Your task to perform on an android device: set the stopwatch Image 0: 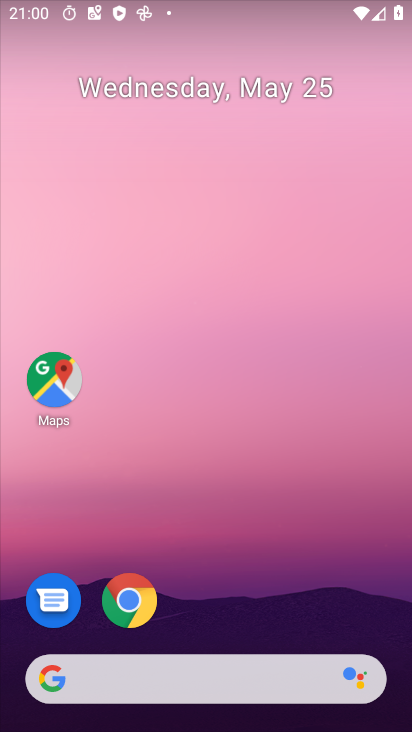
Step 0: drag from (338, 607) to (329, 114)
Your task to perform on an android device: set the stopwatch Image 1: 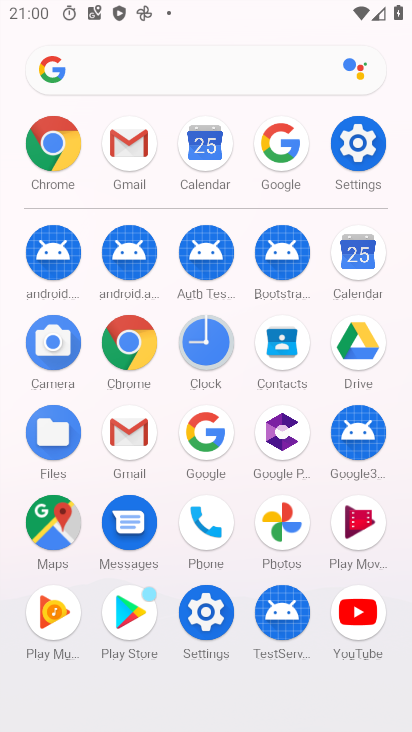
Step 1: click (186, 343)
Your task to perform on an android device: set the stopwatch Image 2: 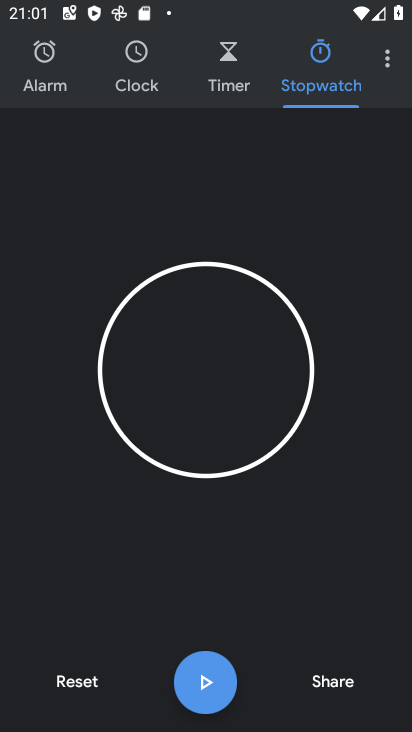
Step 2: click (81, 681)
Your task to perform on an android device: set the stopwatch Image 3: 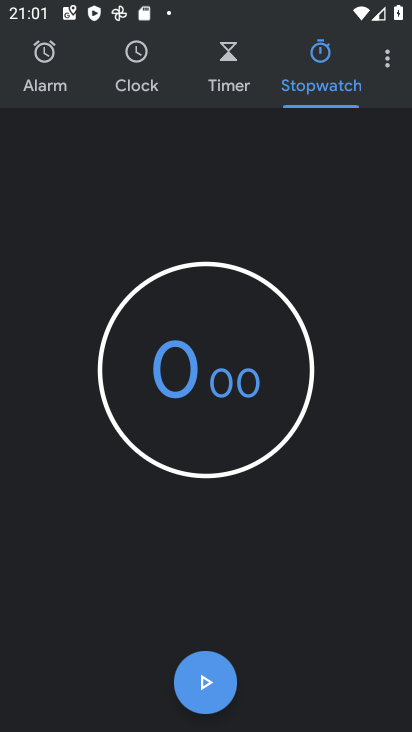
Step 3: click (204, 687)
Your task to perform on an android device: set the stopwatch Image 4: 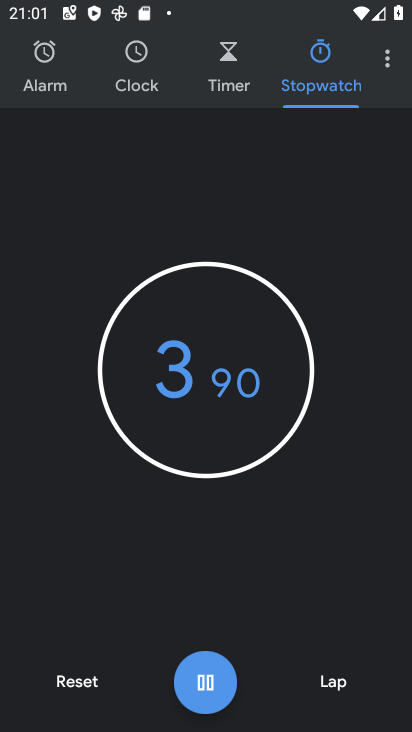
Step 4: click (204, 687)
Your task to perform on an android device: set the stopwatch Image 5: 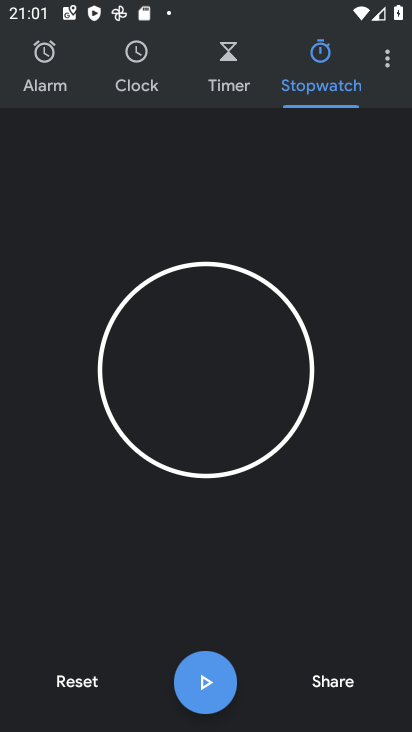
Step 5: task complete